Your task to perform on an android device: Open Yahoo.com Image 0: 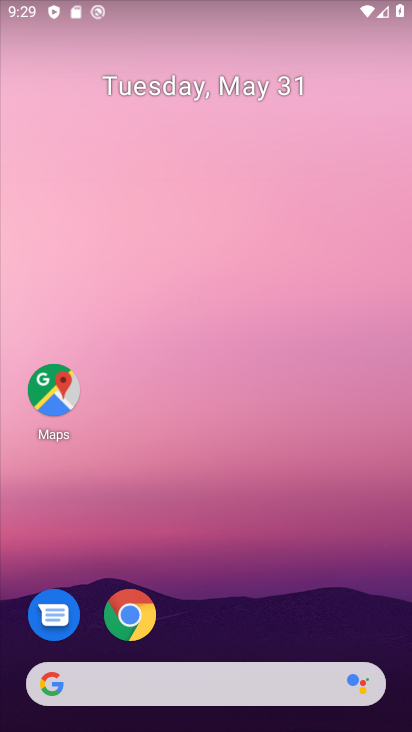
Step 0: click (127, 606)
Your task to perform on an android device: Open Yahoo.com Image 1: 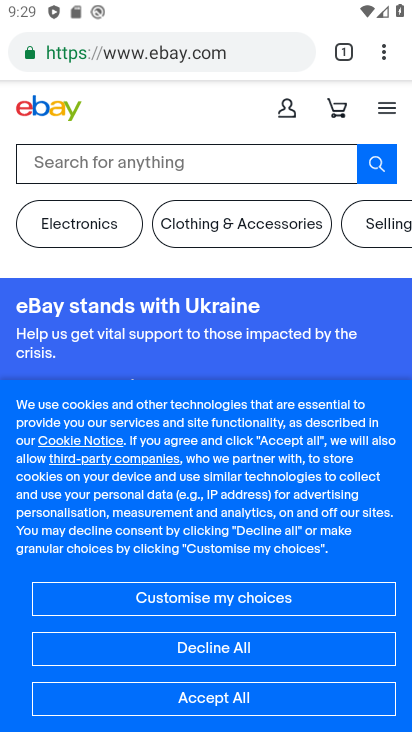
Step 1: click (166, 54)
Your task to perform on an android device: Open Yahoo.com Image 2: 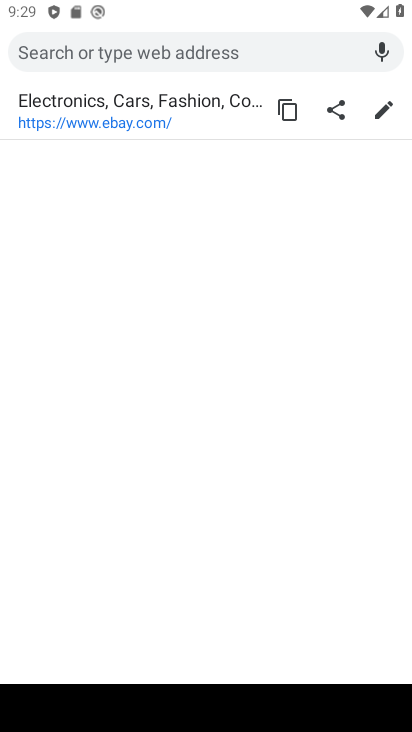
Step 2: type "yahoo.com"
Your task to perform on an android device: Open Yahoo.com Image 3: 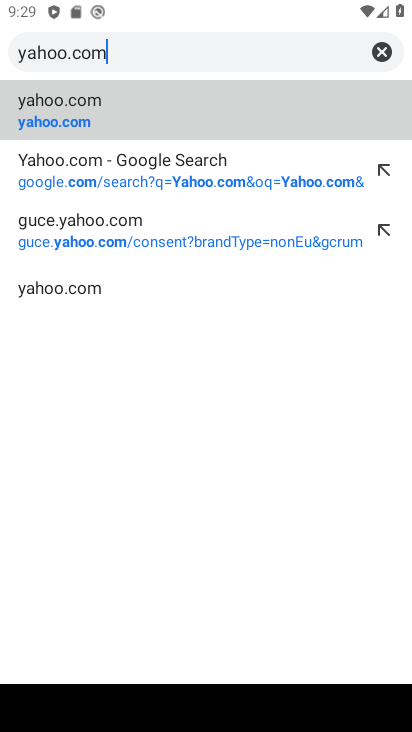
Step 3: click (45, 98)
Your task to perform on an android device: Open Yahoo.com Image 4: 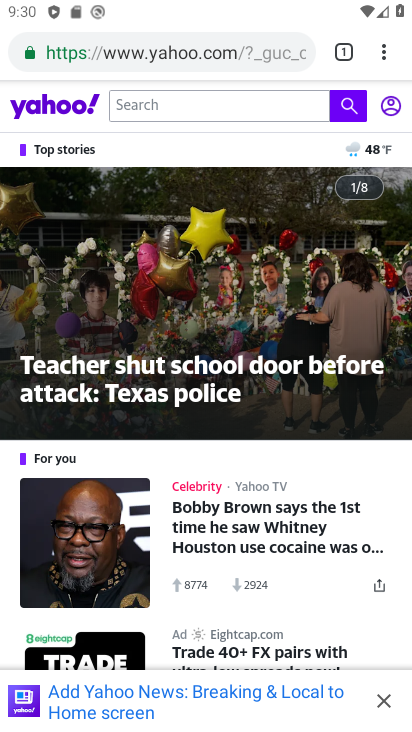
Step 4: task complete